Your task to perform on an android device: Go to CNN.com Image 0: 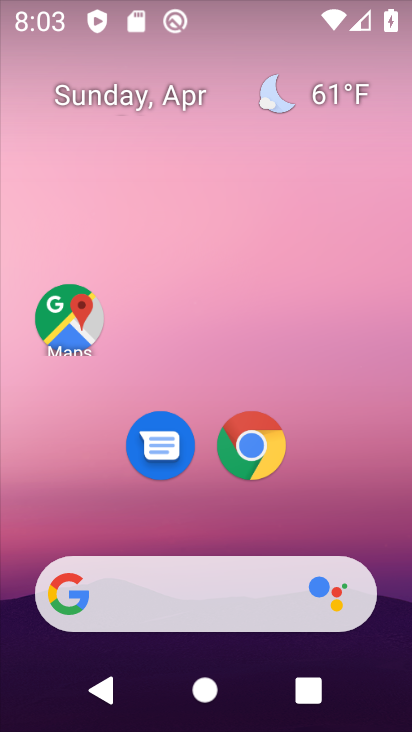
Step 0: click (214, 596)
Your task to perform on an android device: Go to CNN.com Image 1: 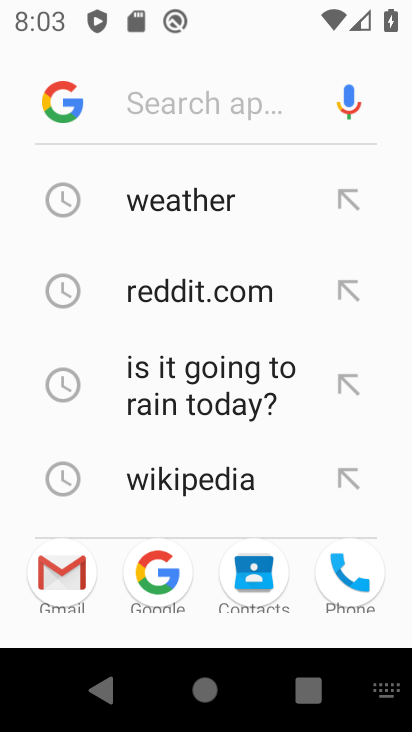
Step 1: type "CNN.com"
Your task to perform on an android device: Go to CNN.com Image 2: 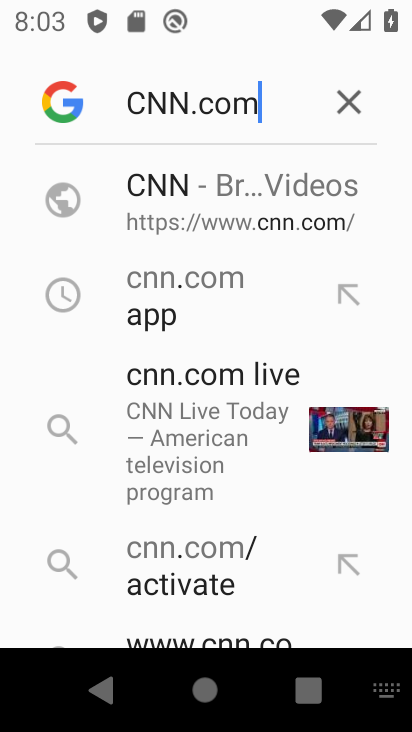
Step 2: click (215, 209)
Your task to perform on an android device: Go to CNN.com Image 3: 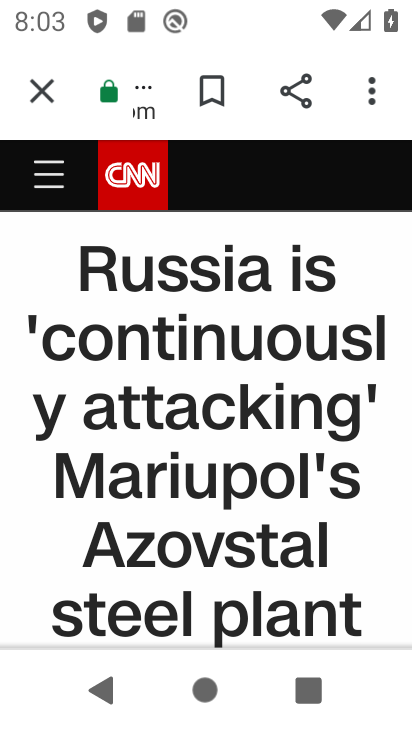
Step 3: task complete